Your task to perform on an android device: open wifi settings Image 0: 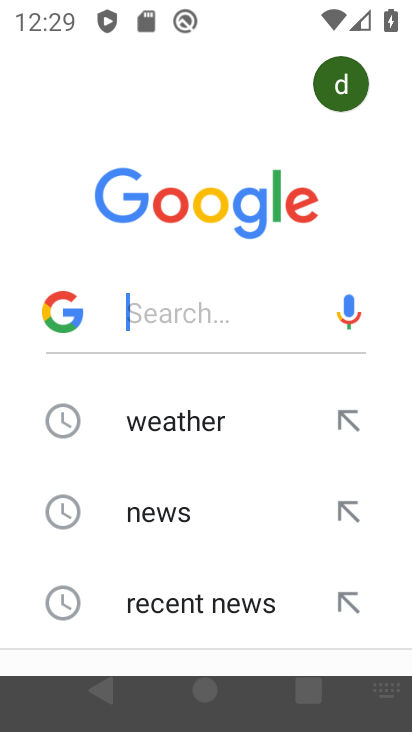
Step 0: press home button
Your task to perform on an android device: open wifi settings Image 1: 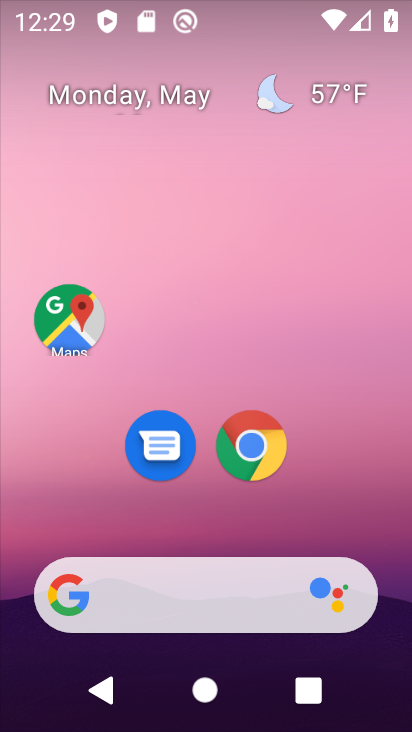
Step 1: drag from (380, 631) to (253, 19)
Your task to perform on an android device: open wifi settings Image 2: 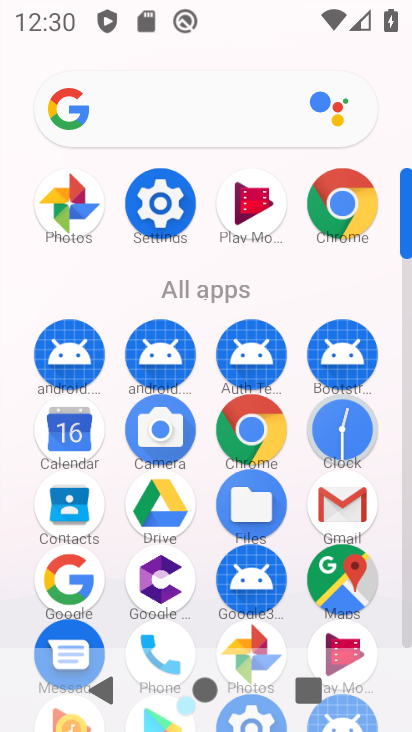
Step 2: click (143, 213)
Your task to perform on an android device: open wifi settings Image 3: 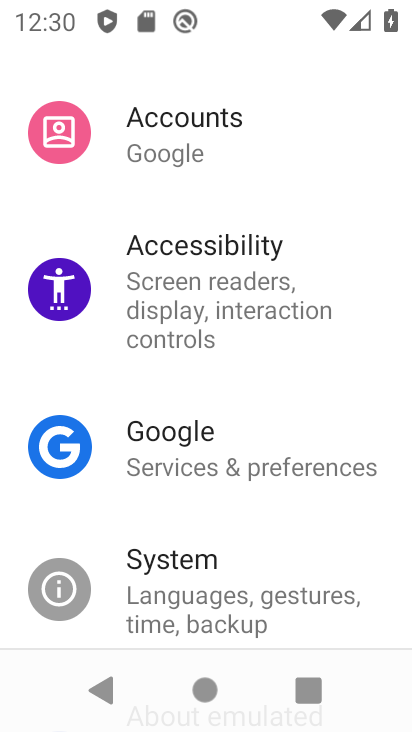
Step 3: drag from (177, 219) to (186, 618)
Your task to perform on an android device: open wifi settings Image 4: 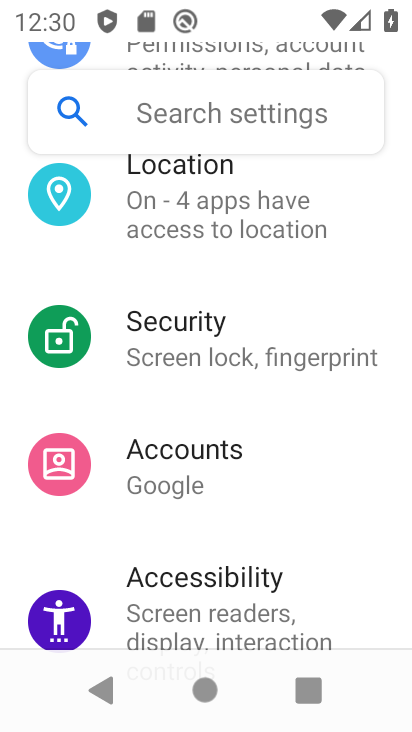
Step 4: drag from (188, 302) to (167, 628)
Your task to perform on an android device: open wifi settings Image 5: 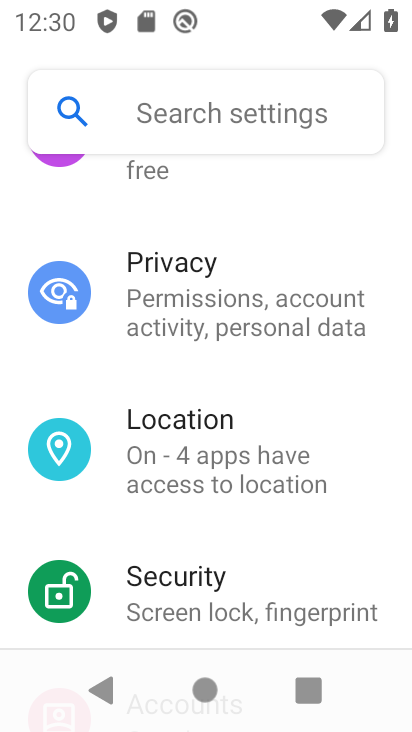
Step 5: drag from (232, 238) to (168, 567)
Your task to perform on an android device: open wifi settings Image 6: 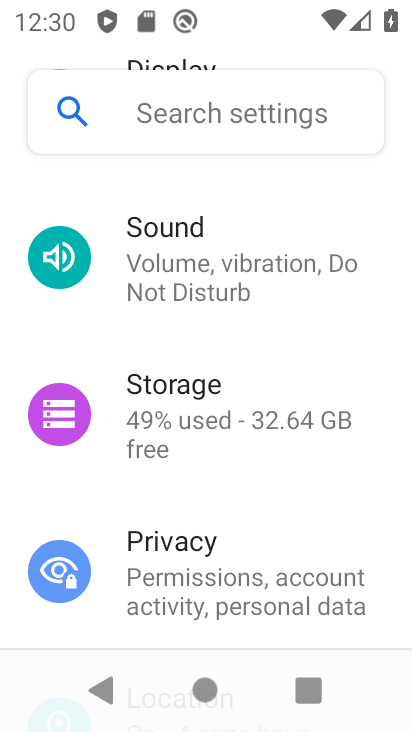
Step 6: drag from (174, 248) to (138, 621)
Your task to perform on an android device: open wifi settings Image 7: 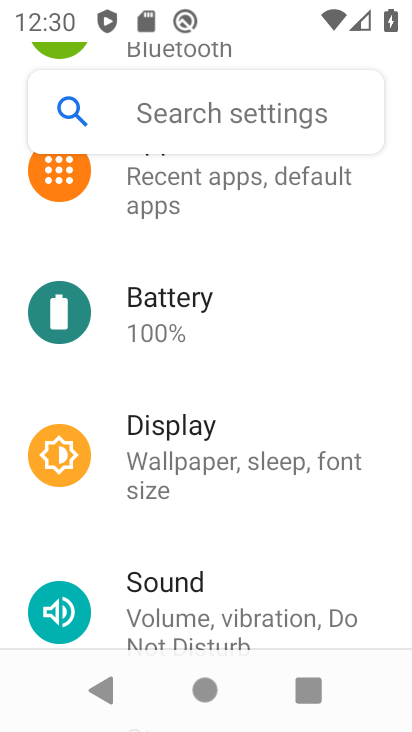
Step 7: drag from (157, 240) to (118, 627)
Your task to perform on an android device: open wifi settings Image 8: 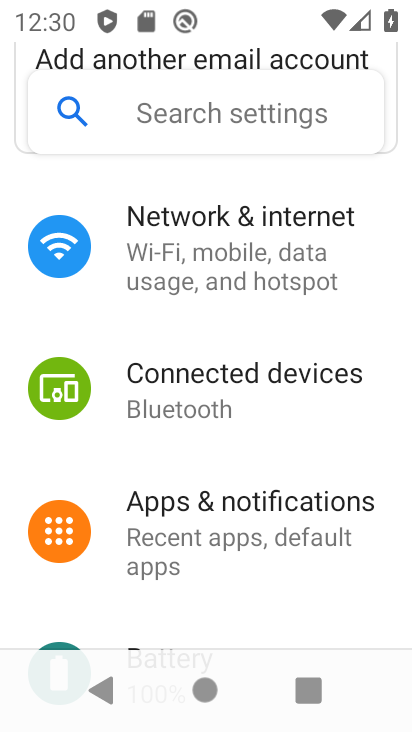
Step 8: drag from (143, 223) to (148, 553)
Your task to perform on an android device: open wifi settings Image 9: 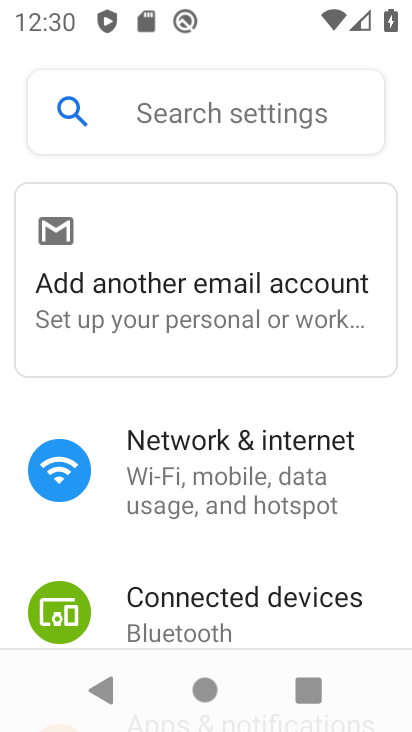
Step 9: click (216, 450)
Your task to perform on an android device: open wifi settings Image 10: 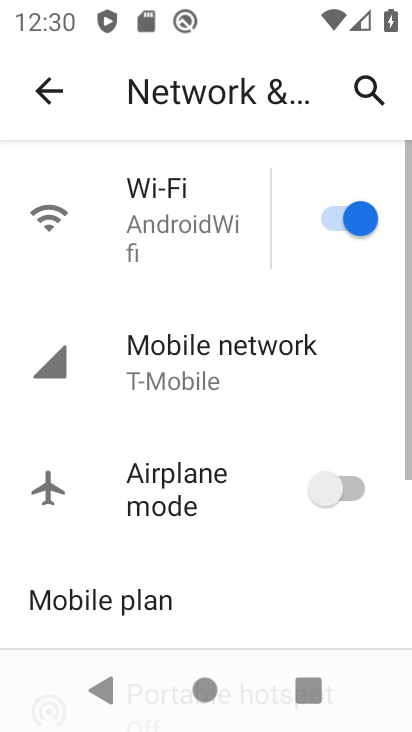
Step 10: click (169, 213)
Your task to perform on an android device: open wifi settings Image 11: 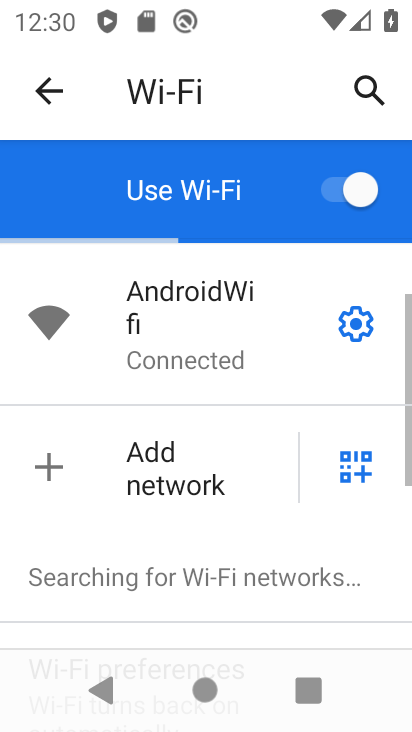
Step 11: task complete